Your task to perform on an android device: find snoozed emails in the gmail app Image 0: 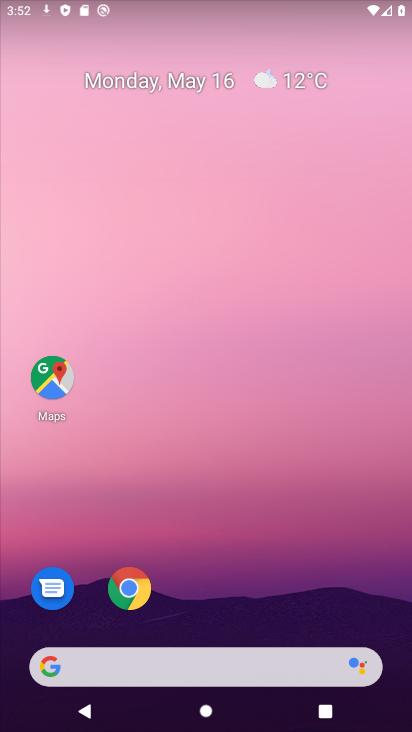
Step 0: drag from (165, 641) to (212, 55)
Your task to perform on an android device: find snoozed emails in the gmail app Image 1: 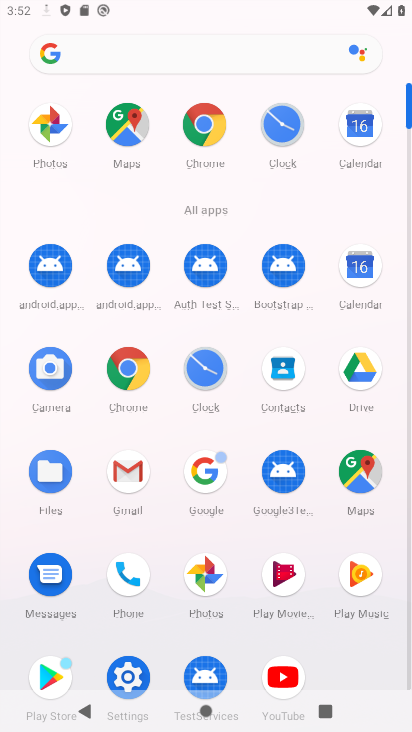
Step 1: click (99, 499)
Your task to perform on an android device: find snoozed emails in the gmail app Image 2: 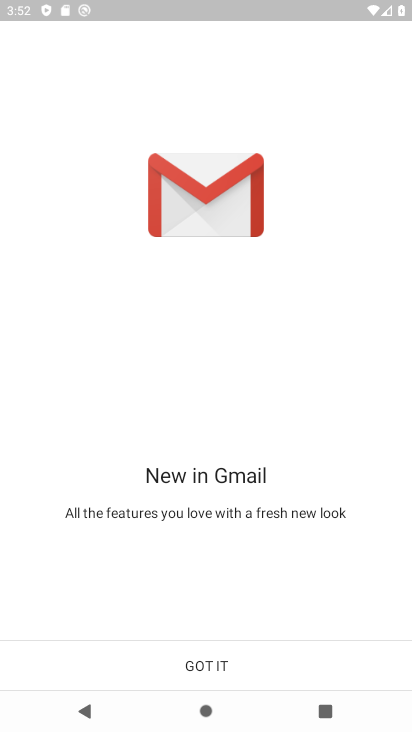
Step 2: click (247, 675)
Your task to perform on an android device: find snoozed emails in the gmail app Image 3: 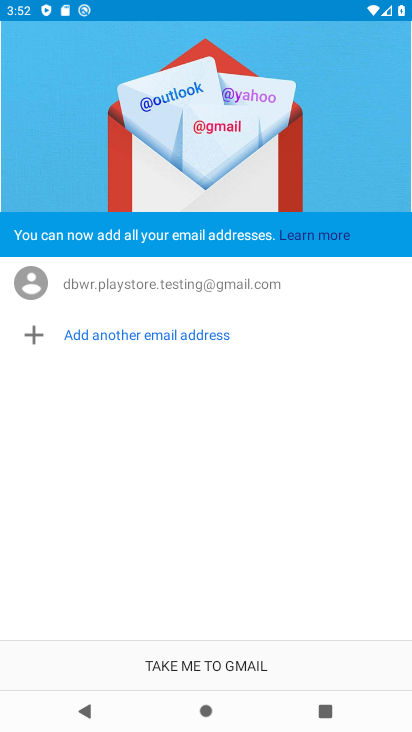
Step 3: click (223, 664)
Your task to perform on an android device: find snoozed emails in the gmail app Image 4: 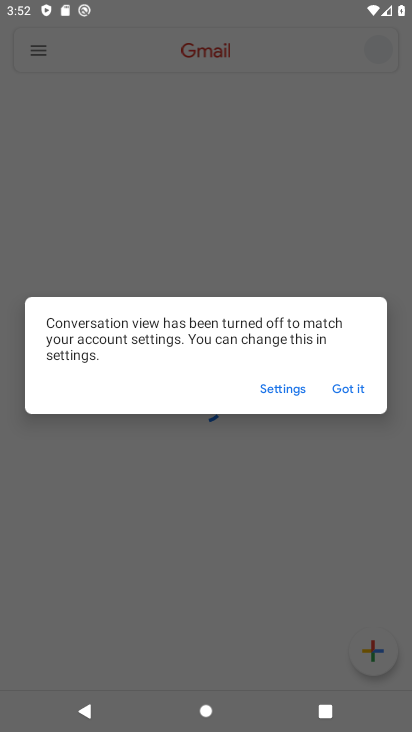
Step 4: click (350, 393)
Your task to perform on an android device: find snoozed emails in the gmail app Image 5: 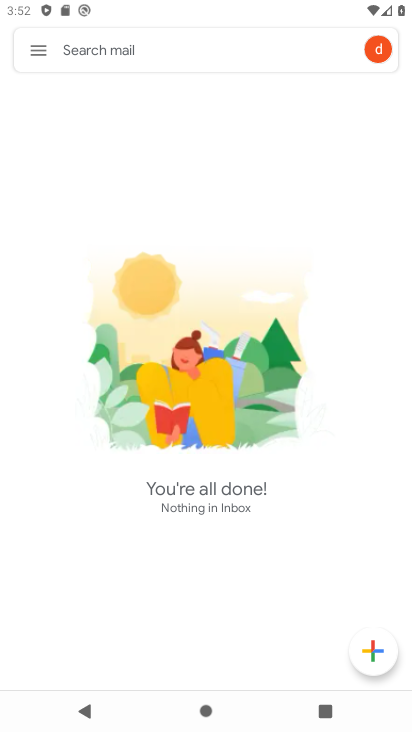
Step 5: click (33, 55)
Your task to perform on an android device: find snoozed emails in the gmail app Image 6: 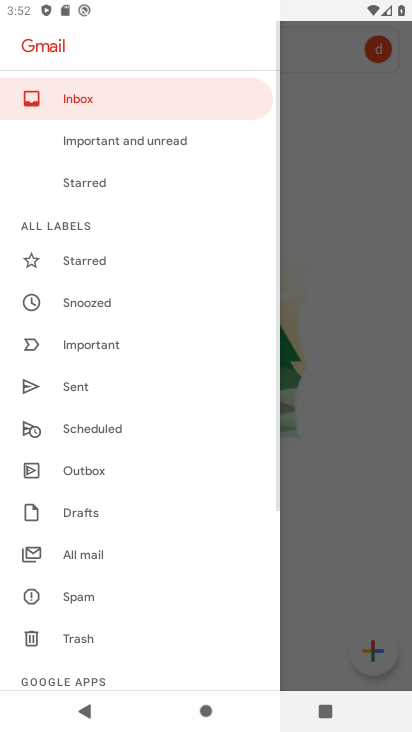
Step 6: drag from (134, 561) to (197, 336)
Your task to perform on an android device: find snoozed emails in the gmail app Image 7: 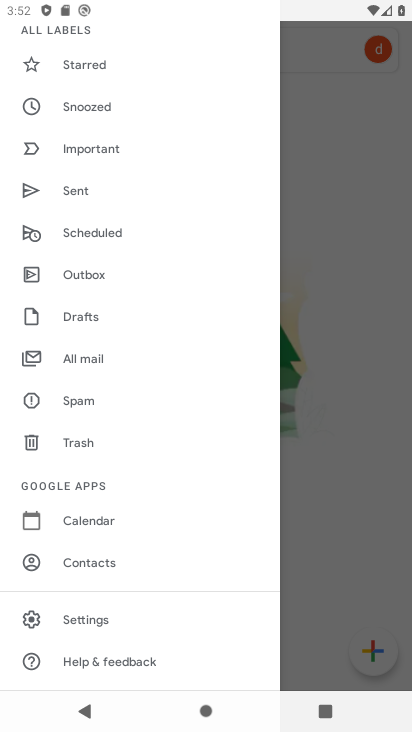
Step 7: click (147, 109)
Your task to perform on an android device: find snoozed emails in the gmail app Image 8: 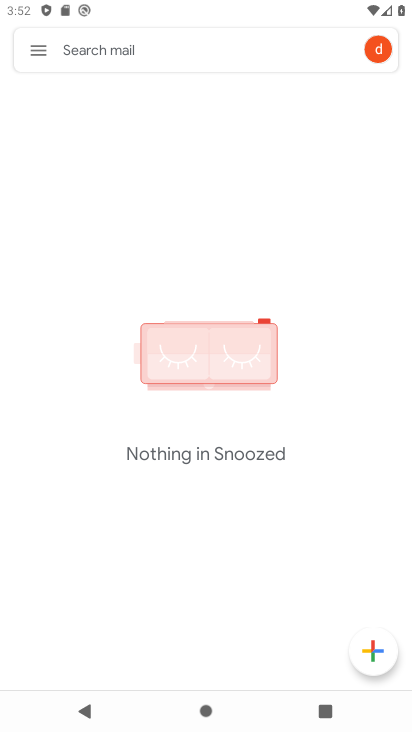
Step 8: task complete